Your task to perform on an android device: delete browsing data in the chrome app Image 0: 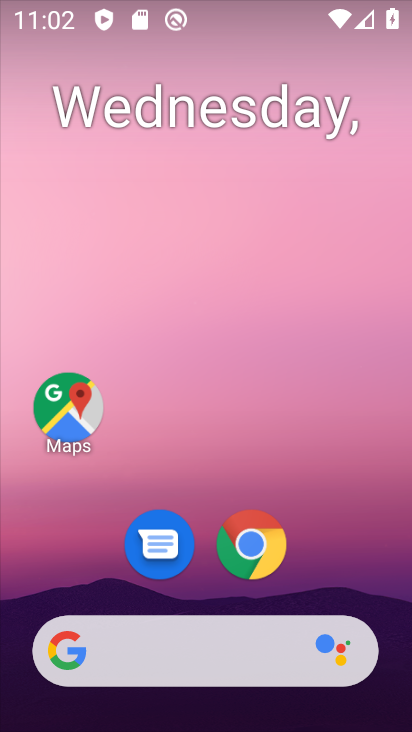
Step 0: click (256, 532)
Your task to perform on an android device: delete browsing data in the chrome app Image 1: 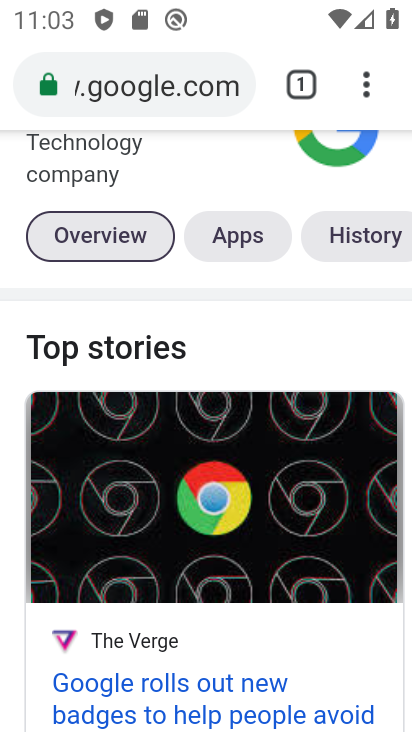
Step 1: click (363, 83)
Your task to perform on an android device: delete browsing data in the chrome app Image 2: 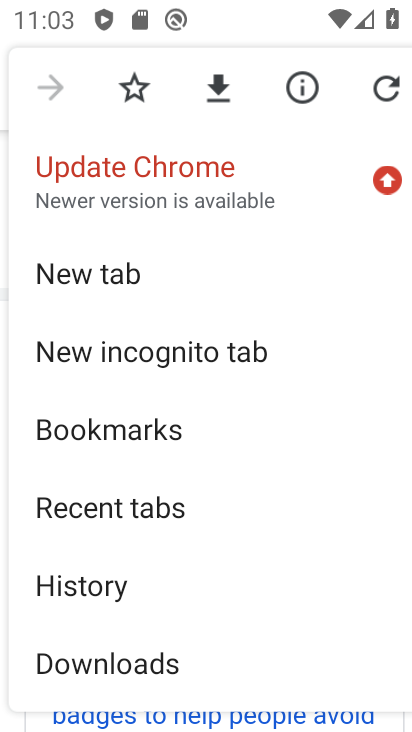
Step 2: click (104, 579)
Your task to perform on an android device: delete browsing data in the chrome app Image 3: 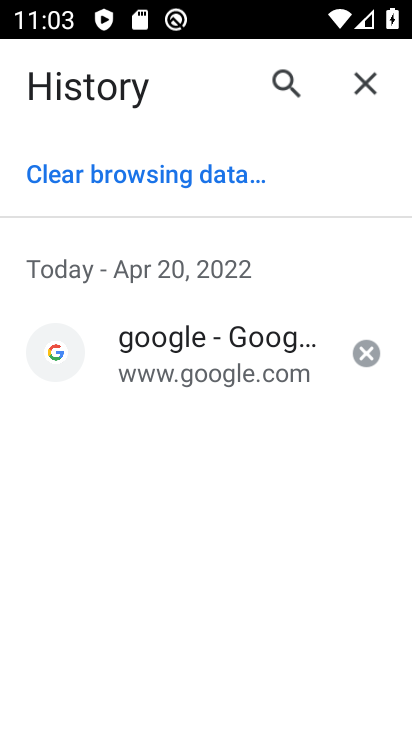
Step 3: click (204, 172)
Your task to perform on an android device: delete browsing data in the chrome app Image 4: 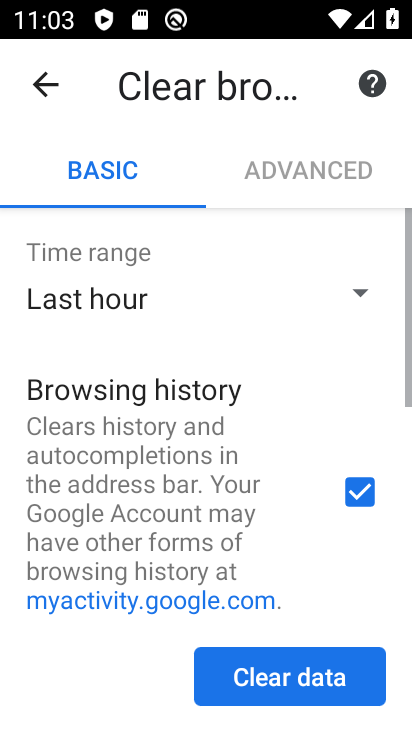
Step 4: click (258, 655)
Your task to perform on an android device: delete browsing data in the chrome app Image 5: 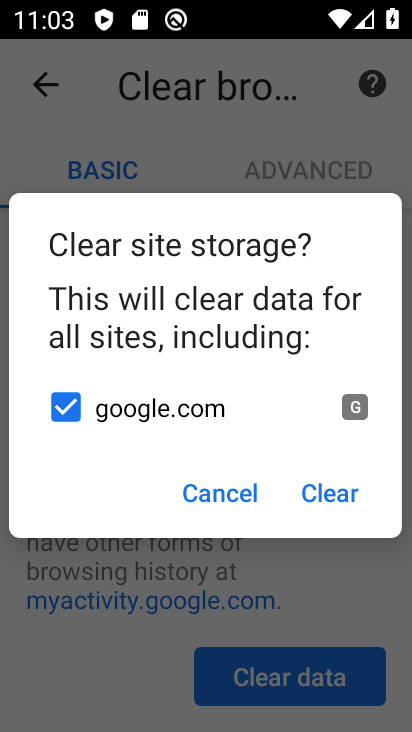
Step 5: click (312, 500)
Your task to perform on an android device: delete browsing data in the chrome app Image 6: 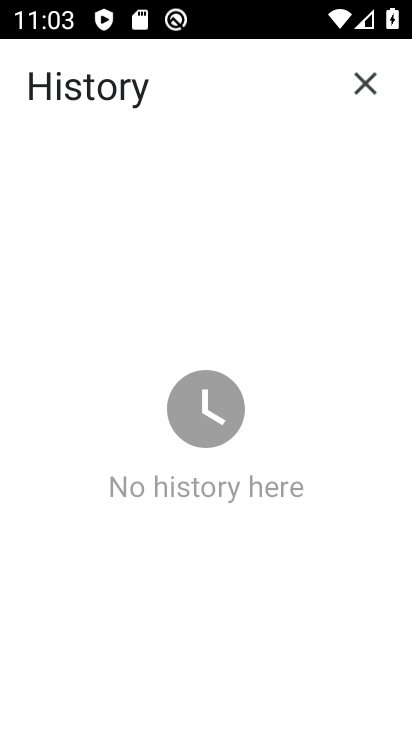
Step 6: task complete